Your task to perform on an android device: Open wifi settings Image 0: 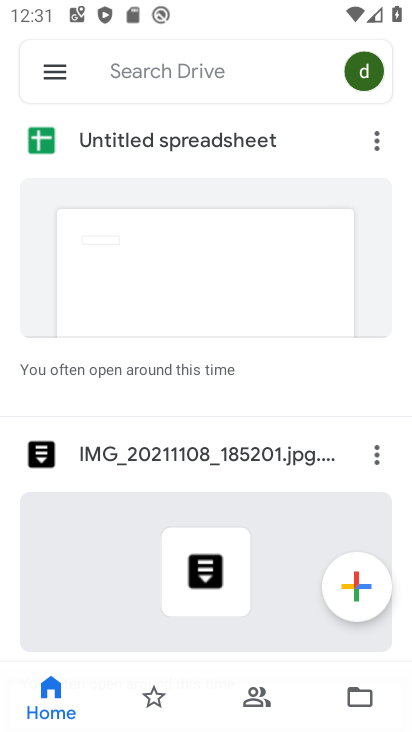
Step 0: press home button
Your task to perform on an android device: Open wifi settings Image 1: 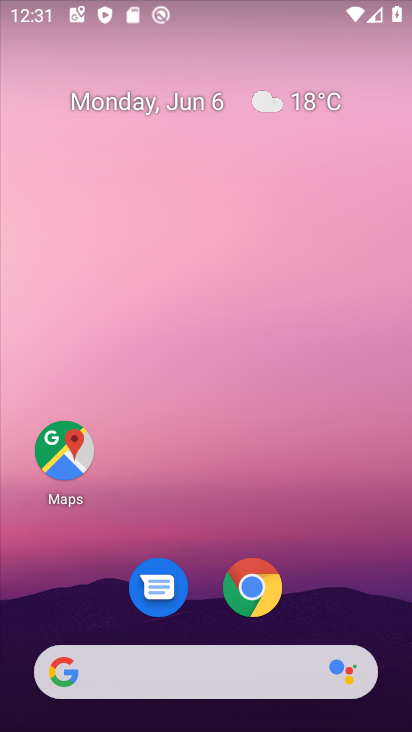
Step 1: drag from (363, 574) to (368, 205)
Your task to perform on an android device: Open wifi settings Image 2: 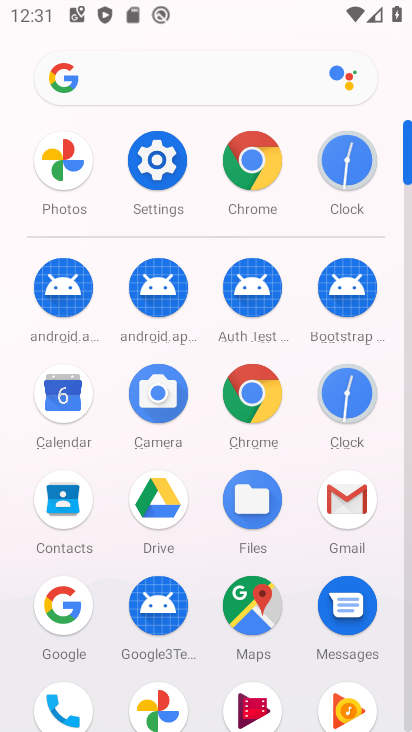
Step 2: click (156, 144)
Your task to perform on an android device: Open wifi settings Image 3: 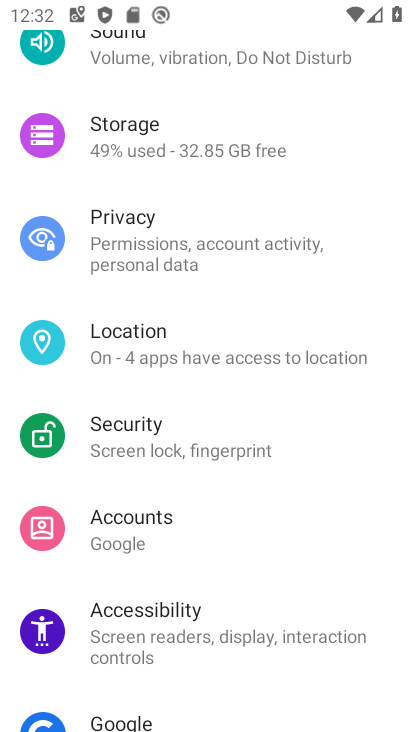
Step 3: drag from (277, 175) to (279, 519)
Your task to perform on an android device: Open wifi settings Image 4: 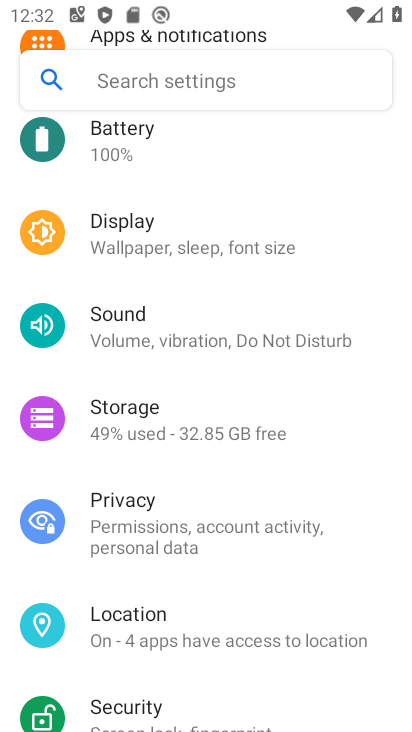
Step 4: drag from (264, 250) to (258, 566)
Your task to perform on an android device: Open wifi settings Image 5: 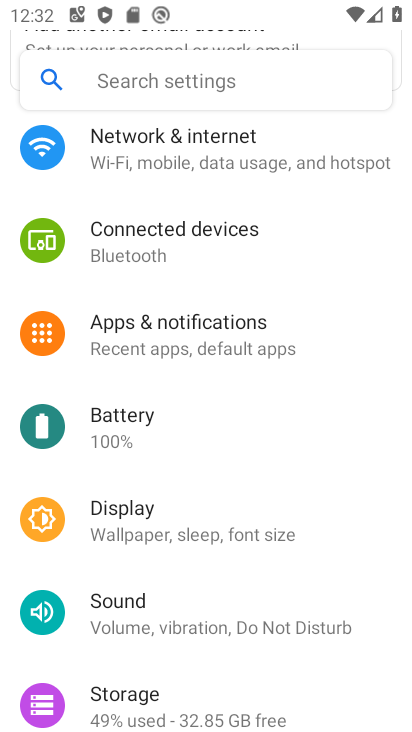
Step 5: click (228, 156)
Your task to perform on an android device: Open wifi settings Image 6: 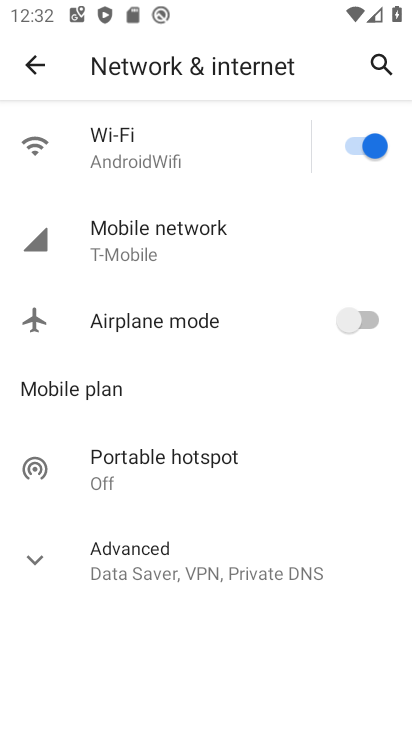
Step 6: click (187, 154)
Your task to perform on an android device: Open wifi settings Image 7: 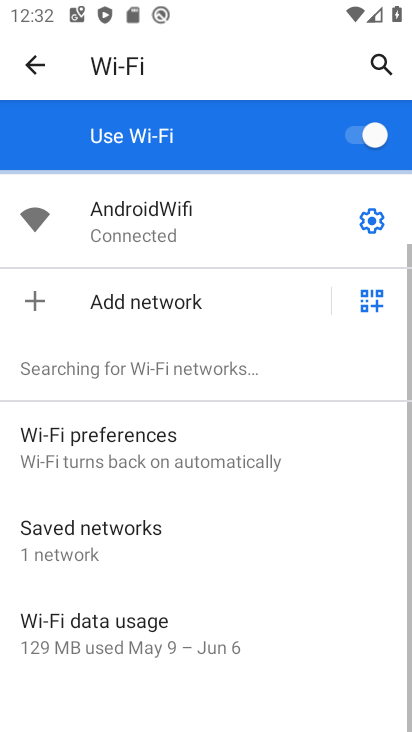
Step 7: task complete